Your task to perform on an android device: What is the news today? Image 0: 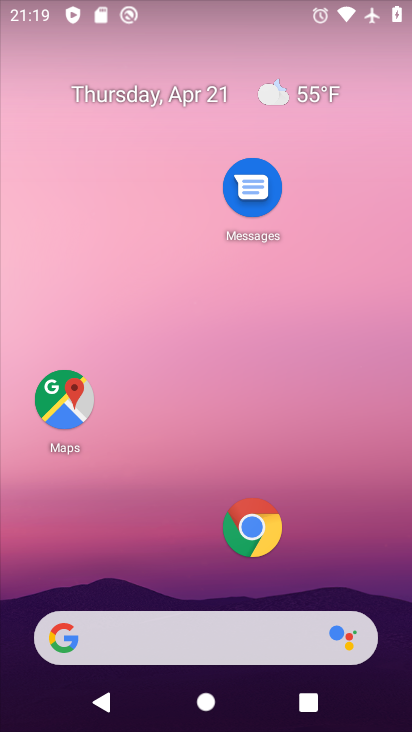
Step 0: drag from (17, 227) to (375, 216)
Your task to perform on an android device: What is the news today? Image 1: 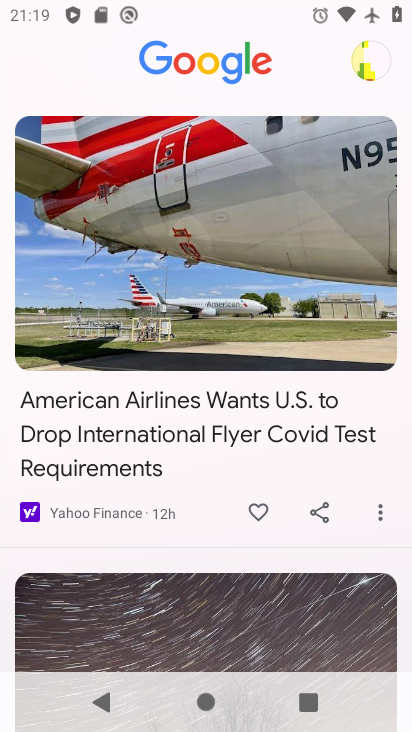
Step 1: task complete